Your task to perform on an android device: check storage Image 0: 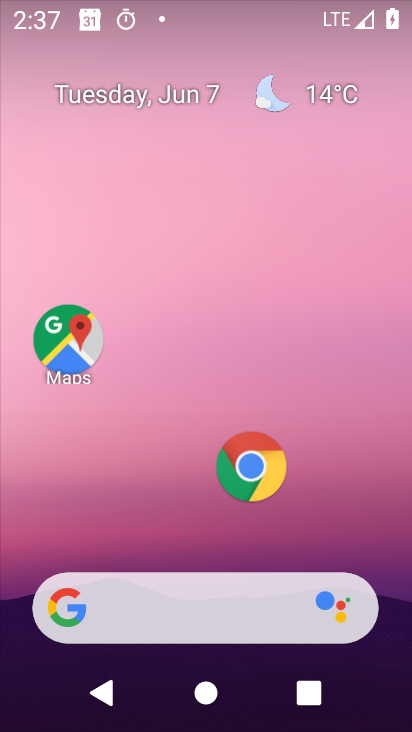
Step 0: drag from (173, 541) to (195, 10)
Your task to perform on an android device: check storage Image 1: 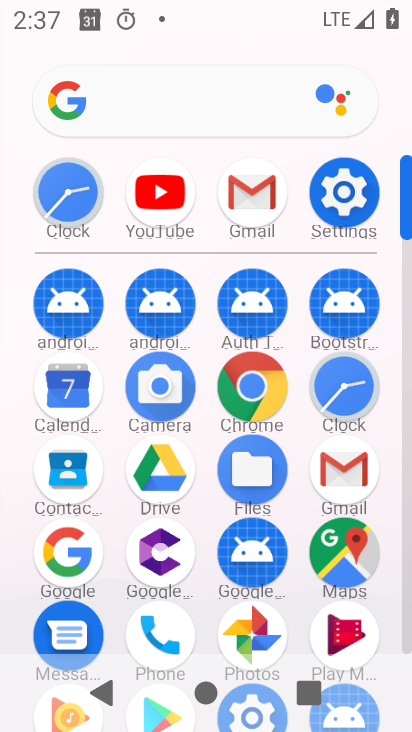
Step 1: click (337, 196)
Your task to perform on an android device: check storage Image 2: 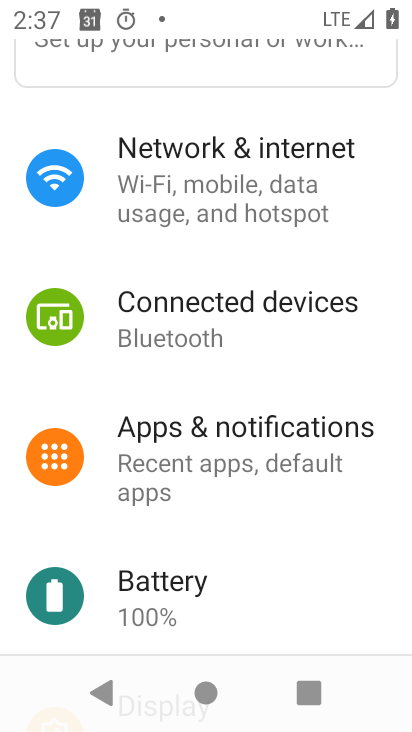
Step 2: drag from (300, 523) to (280, 266)
Your task to perform on an android device: check storage Image 3: 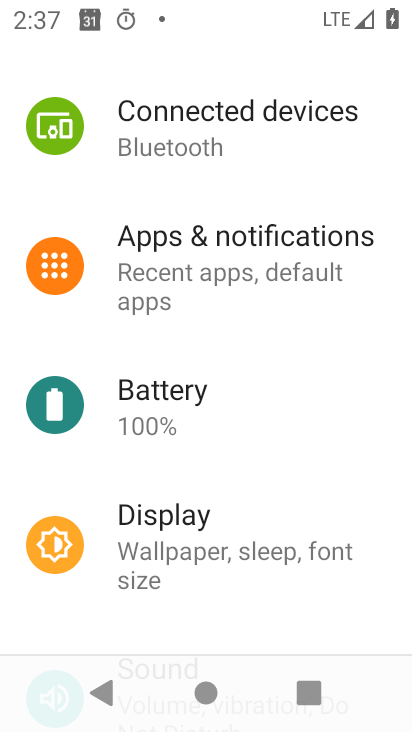
Step 3: drag from (274, 585) to (299, 286)
Your task to perform on an android device: check storage Image 4: 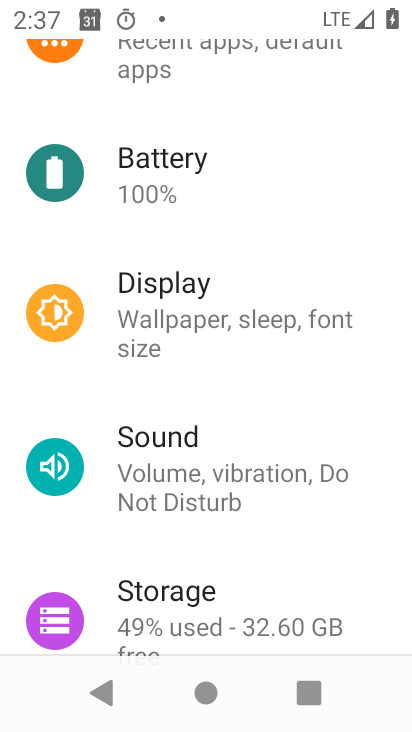
Step 4: click (195, 616)
Your task to perform on an android device: check storage Image 5: 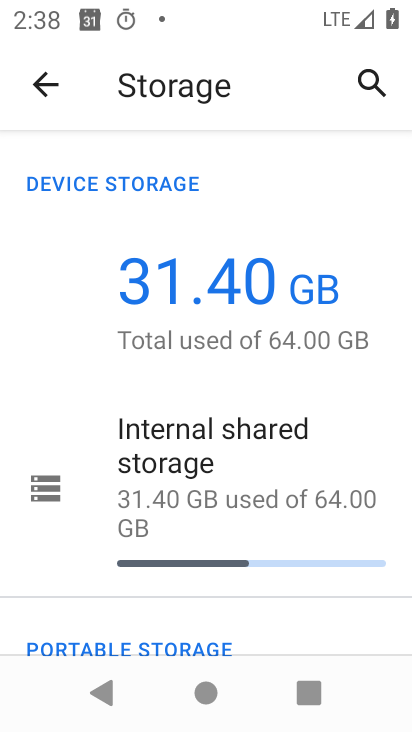
Step 5: task complete